Your task to perform on an android device: open app "Viber Messenger" (install if not already installed) Image 0: 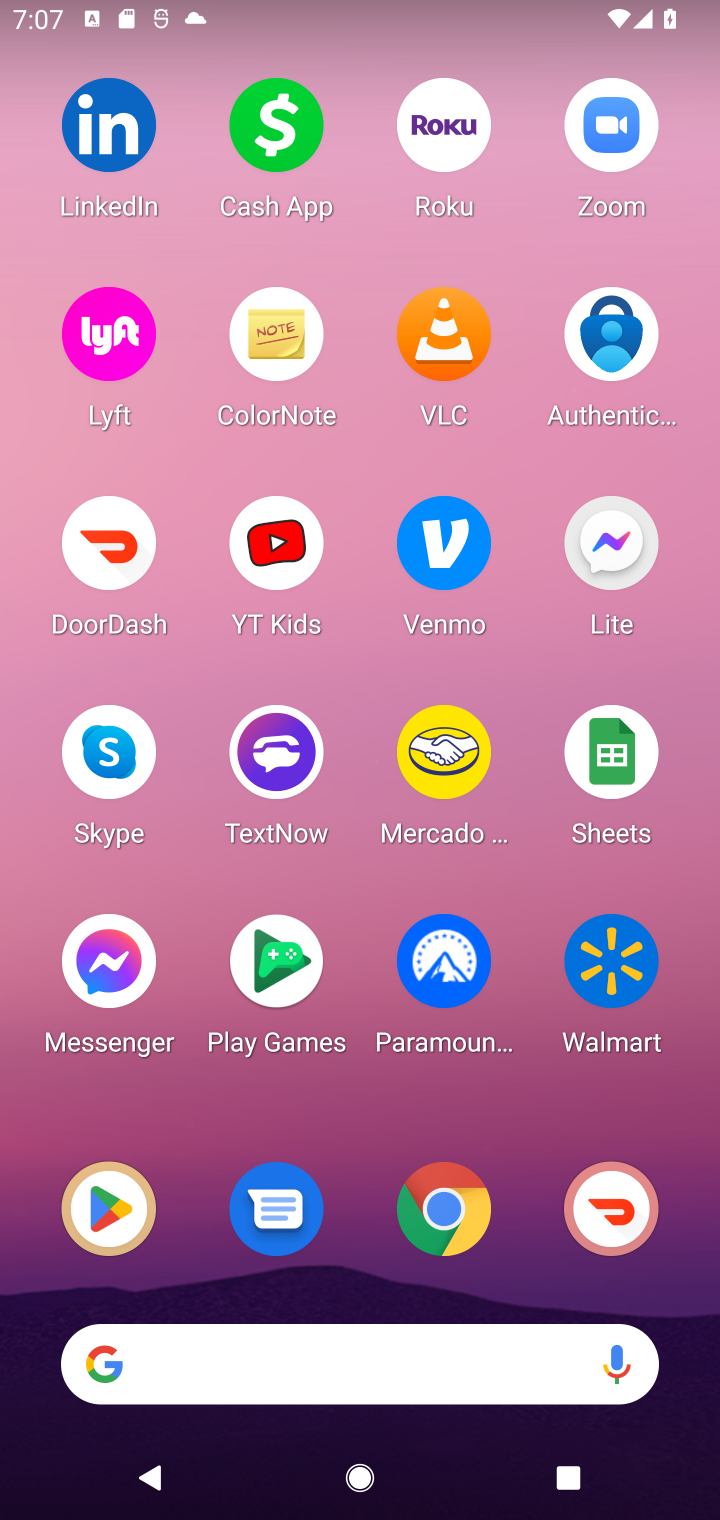
Step 0: click (100, 1220)
Your task to perform on an android device: open app "Viber Messenger" (install if not already installed) Image 1: 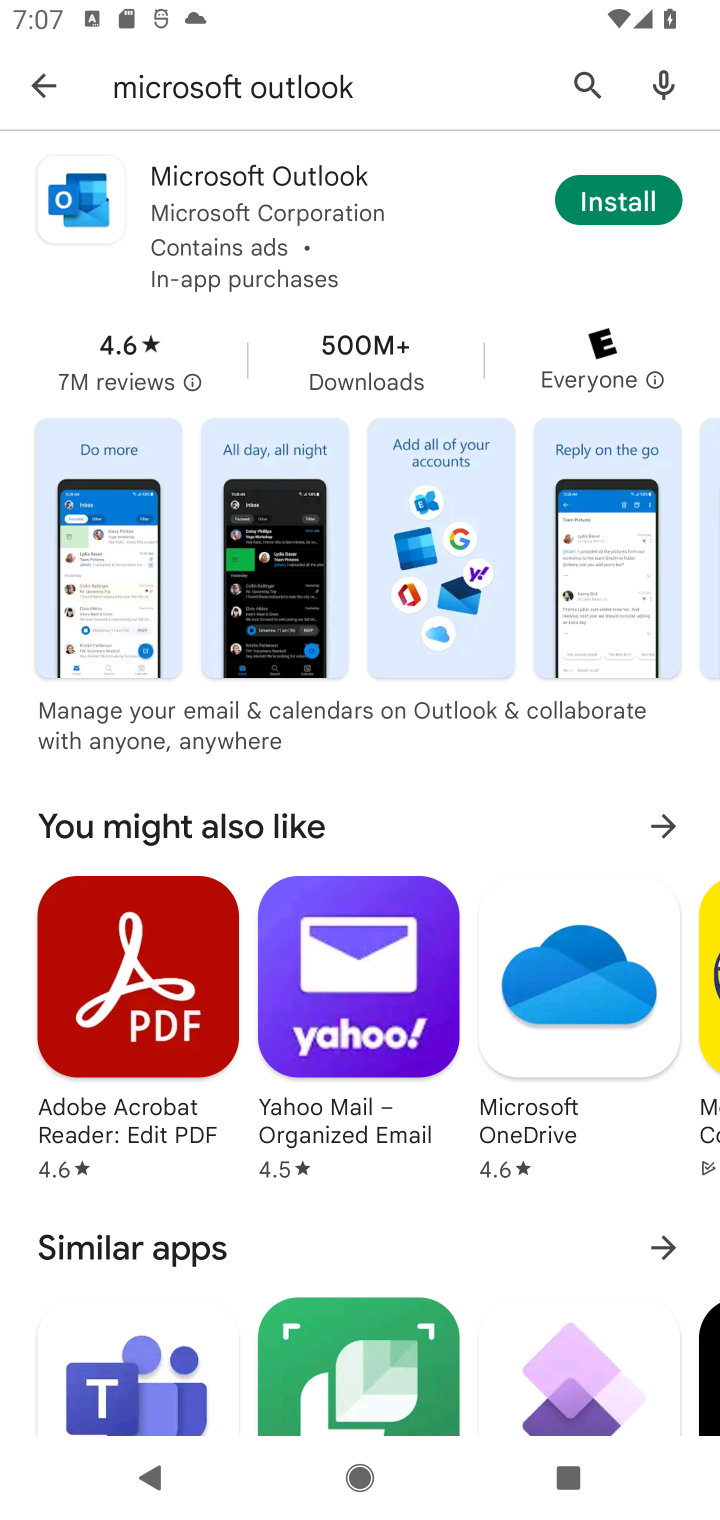
Step 1: click (592, 83)
Your task to perform on an android device: open app "Viber Messenger" (install if not already installed) Image 2: 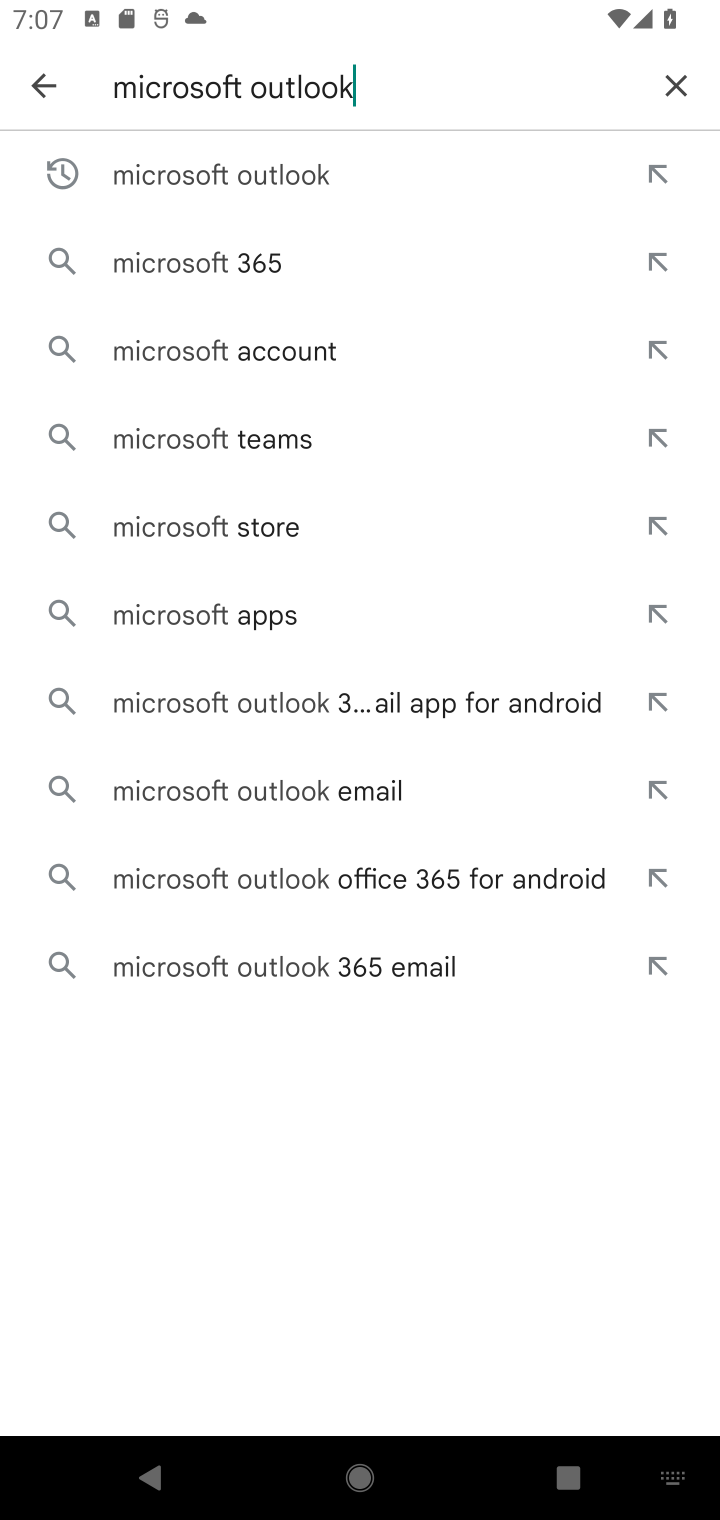
Step 2: click (663, 79)
Your task to perform on an android device: open app "Viber Messenger" (install if not already installed) Image 3: 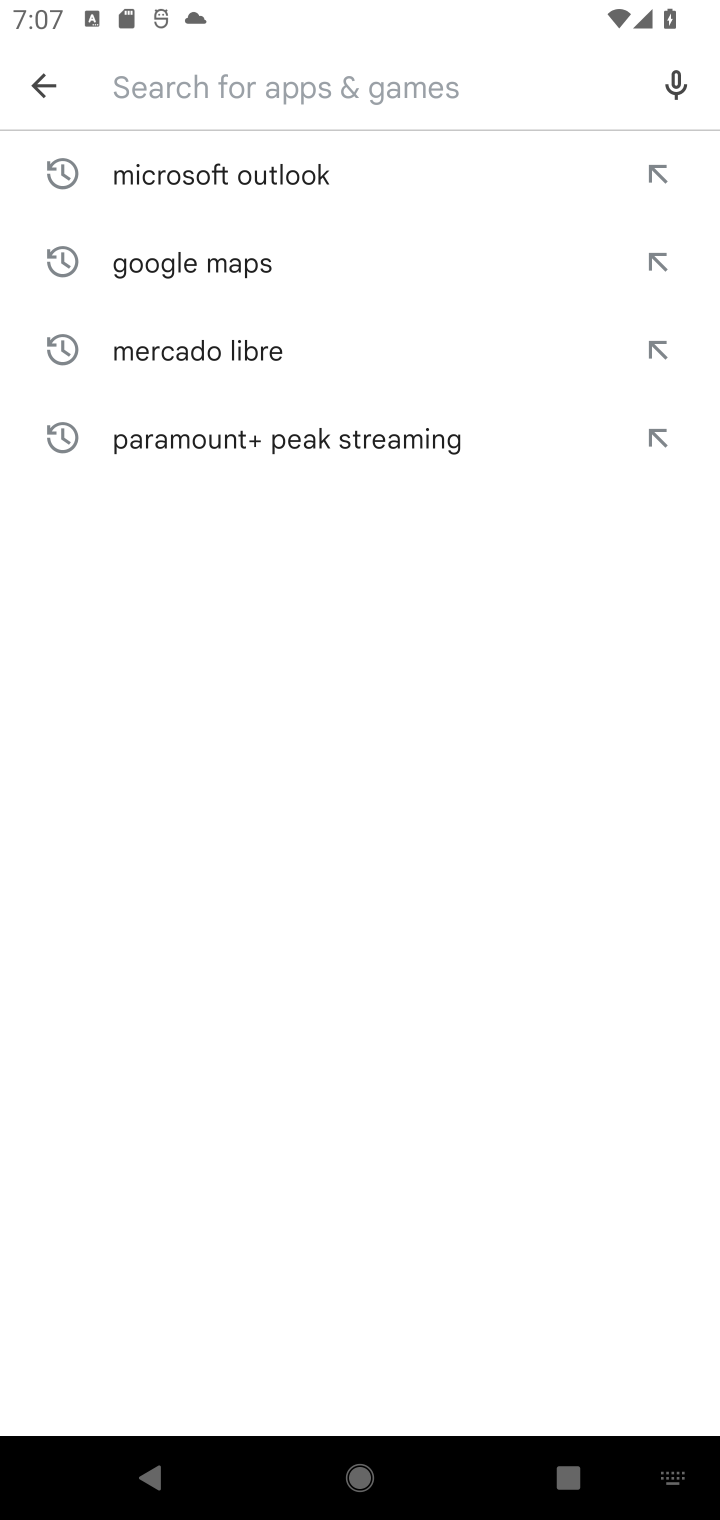
Step 3: type "Viber Messenger"
Your task to perform on an android device: open app "Viber Messenger" (install if not already installed) Image 4: 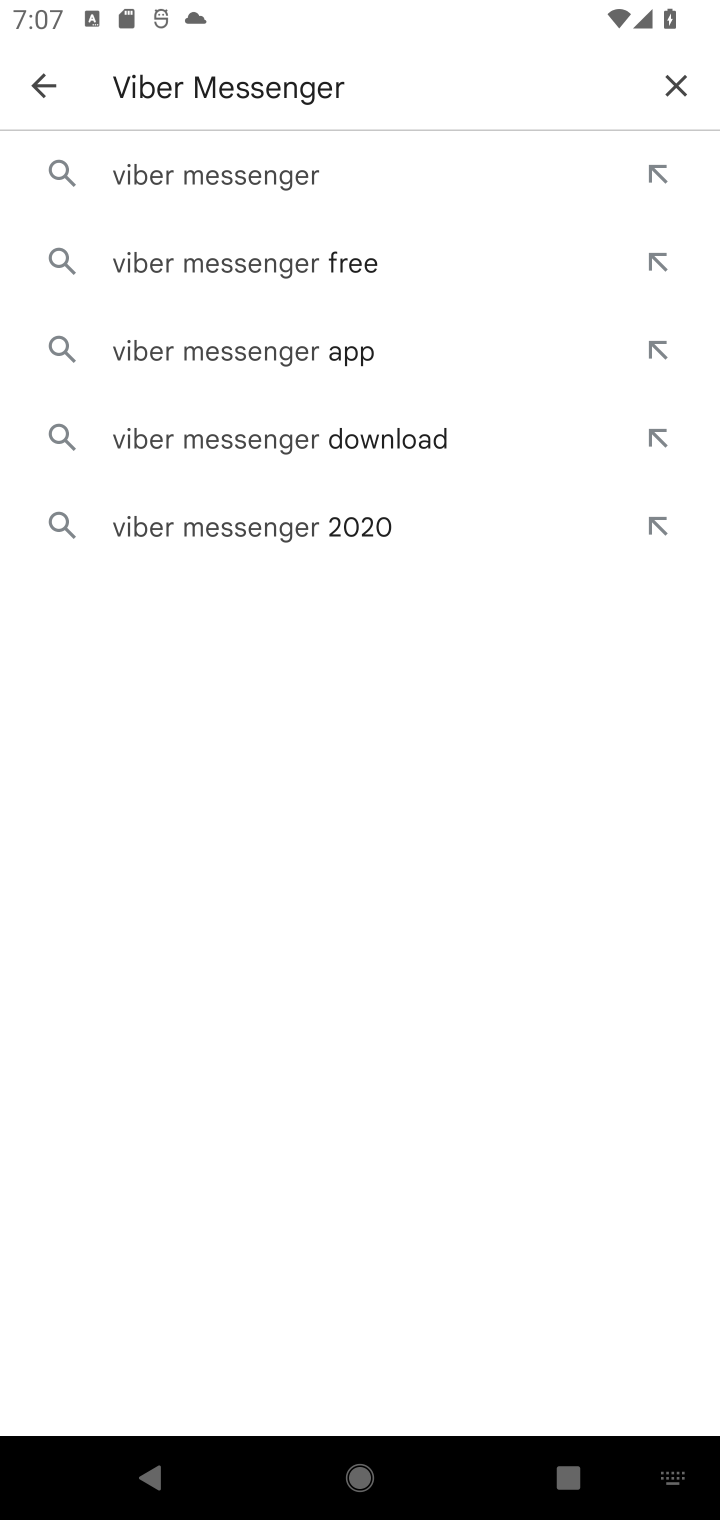
Step 4: click (120, 182)
Your task to perform on an android device: open app "Viber Messenger" (install if not already installed) Image 5: 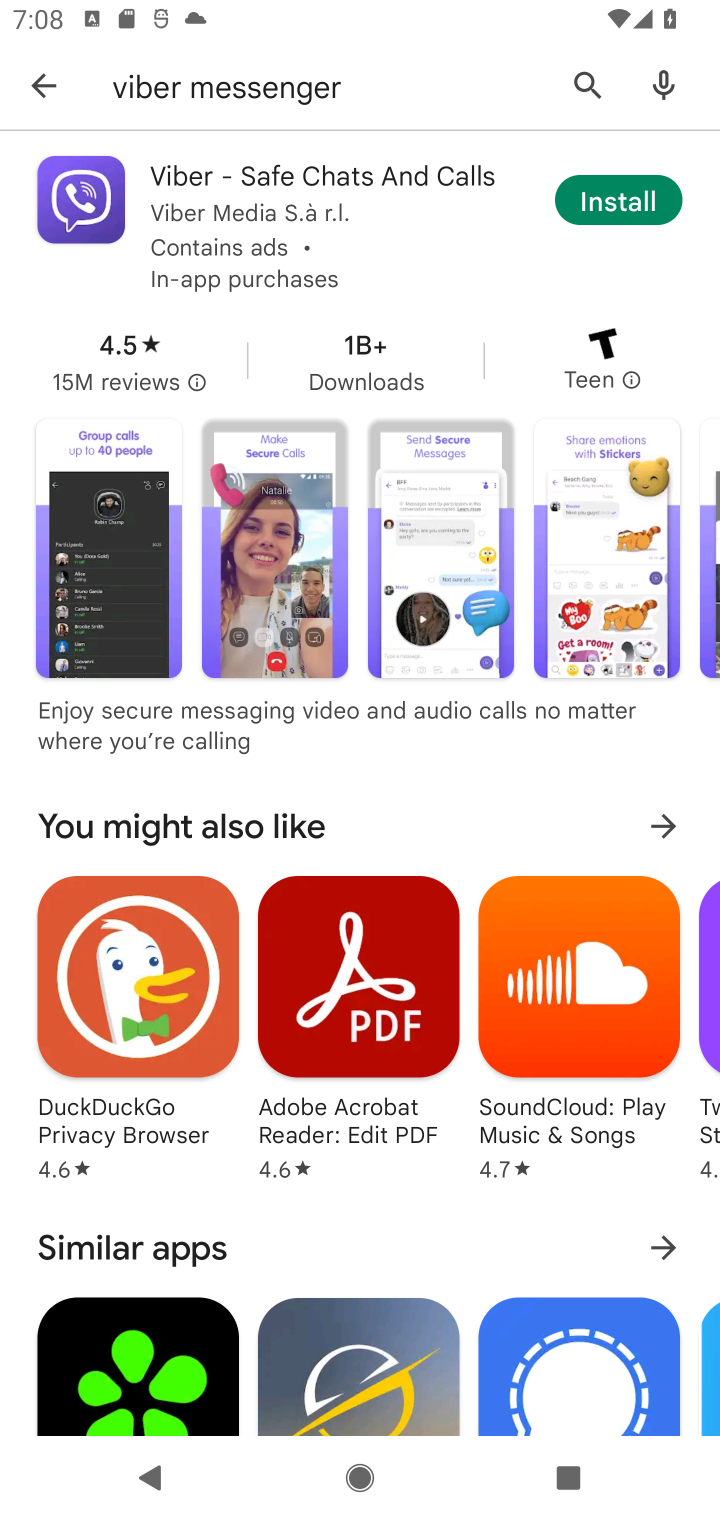
Step 5: click (644, 199)
Your task to perform on an android device: open app "Viber Messenger" (install if not already installed) Image 6: 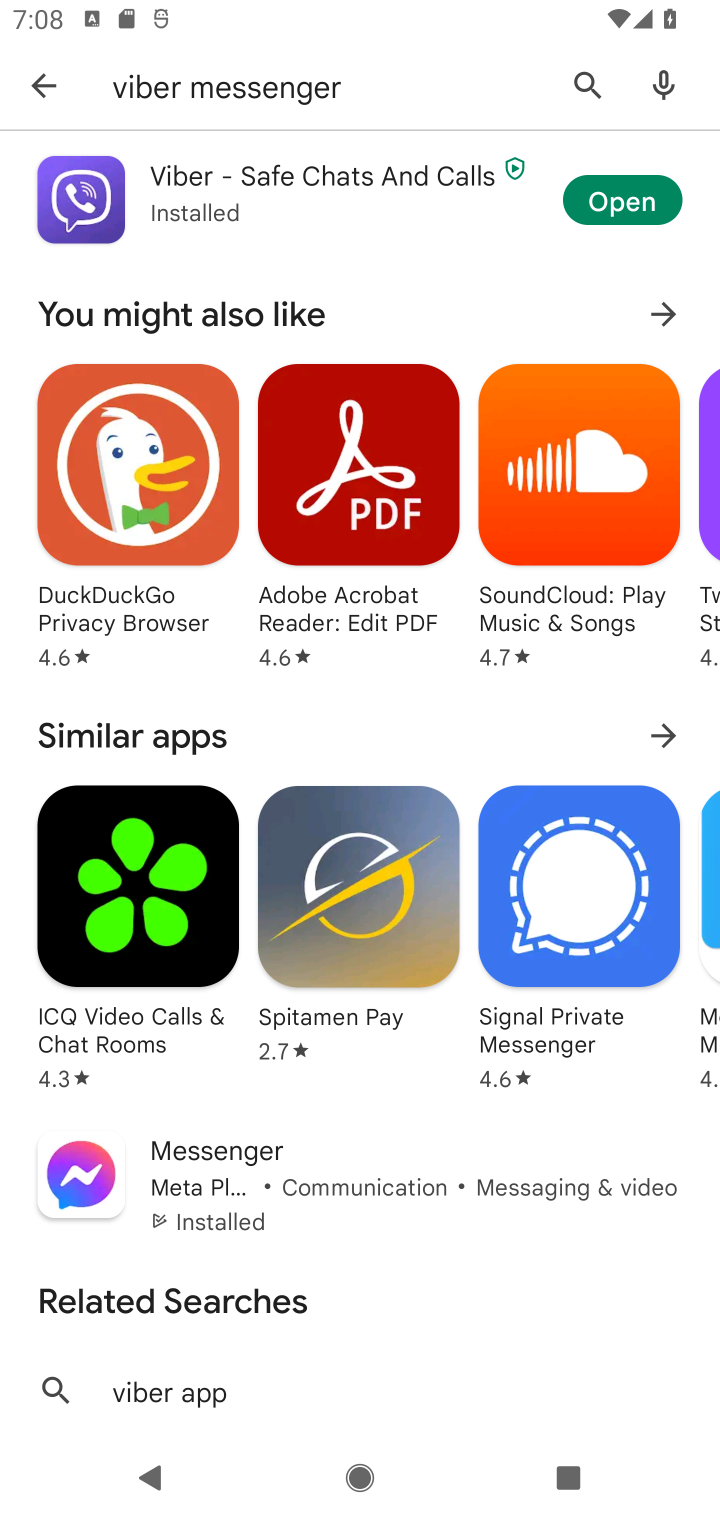
Step 6: click (600, 207)
Your task to perform on an android device: open app "Viber Messenger" (install if not already installed) Image 7: 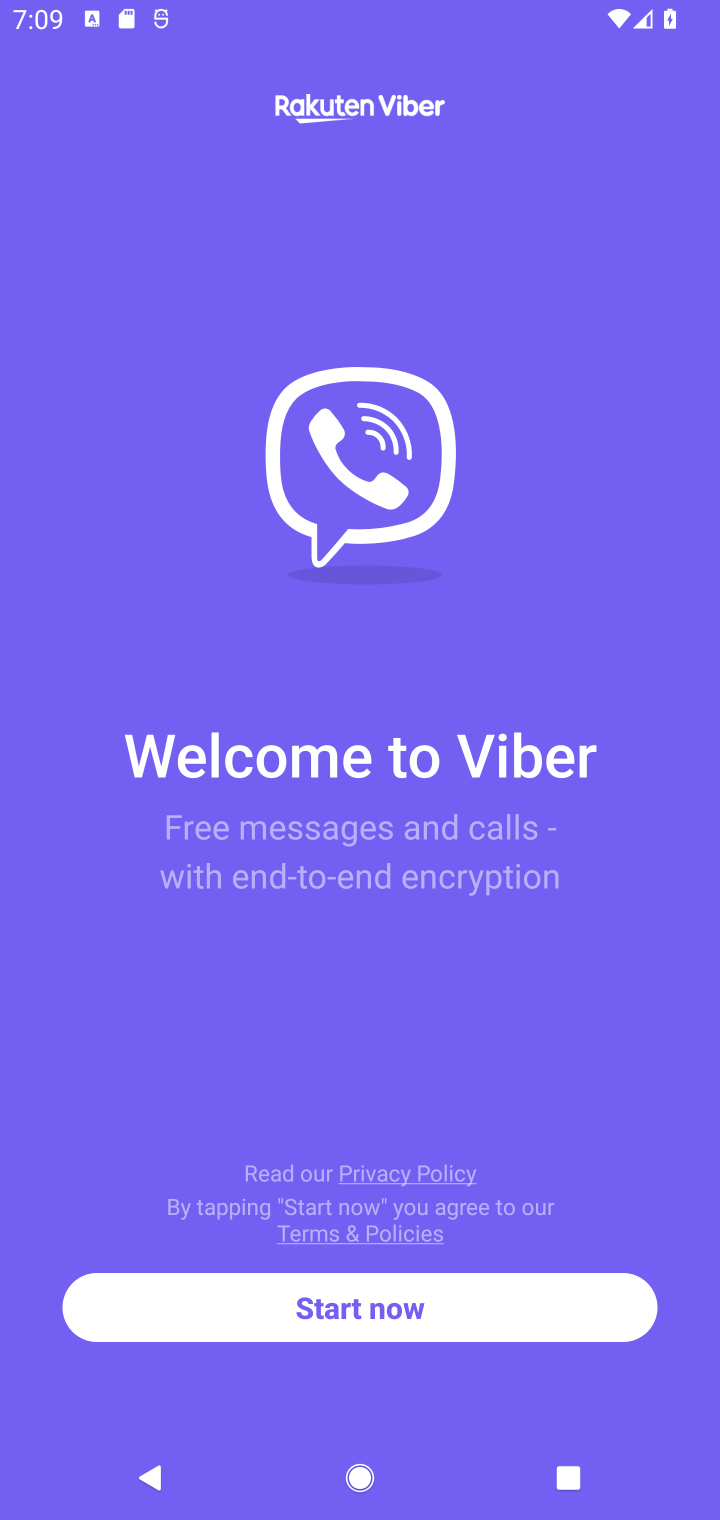
Step 7: task complete